Your task to perform on an android device: View the shopping cart on newegg. Image 0: 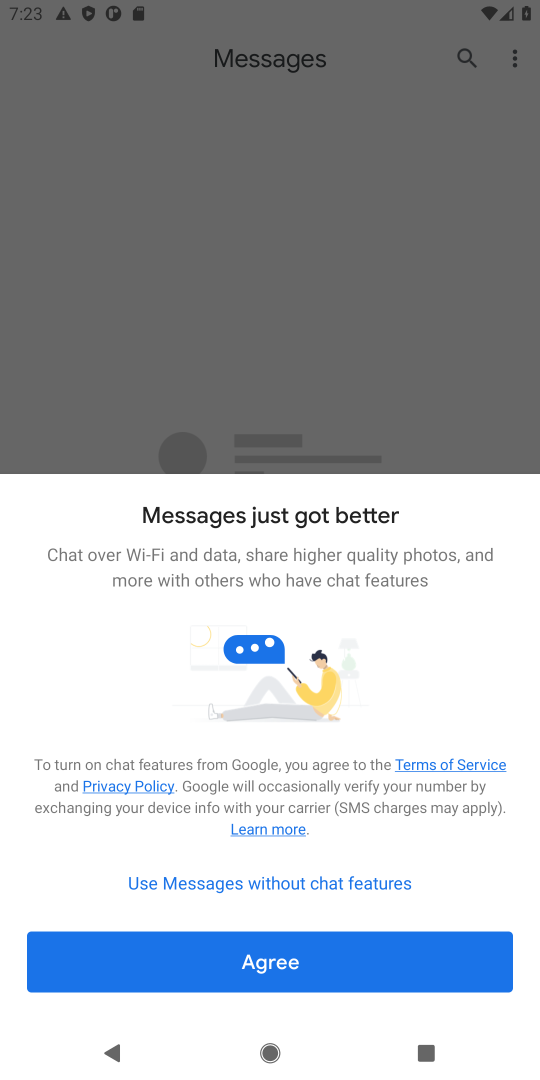
Step 0: press home button
Your task to perform on an android device: View the shopping cart on newegg. Image 1: 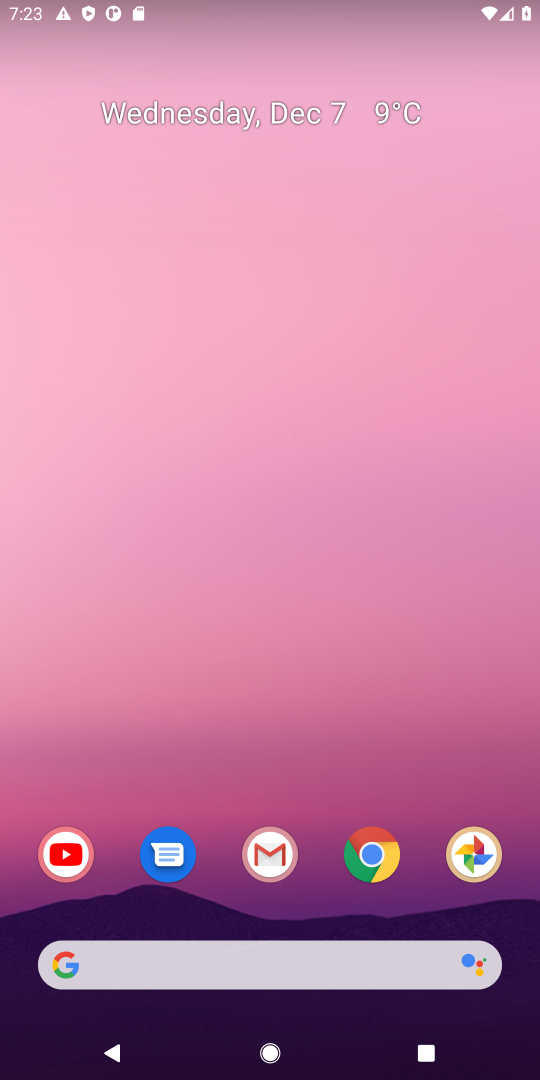
Step 1: click (271, 978)
Your task to perform on an android device: View the shopping cart on newegg. Image 2: 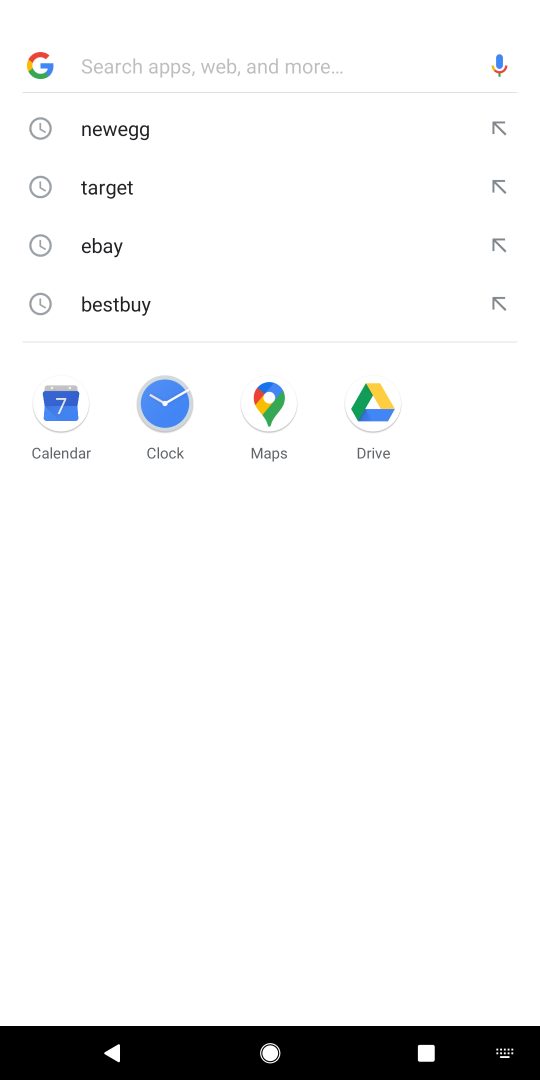
Step 2: type "newegg"
Your task to perform on an android device: View the shopping cart on newegg. Image 3: 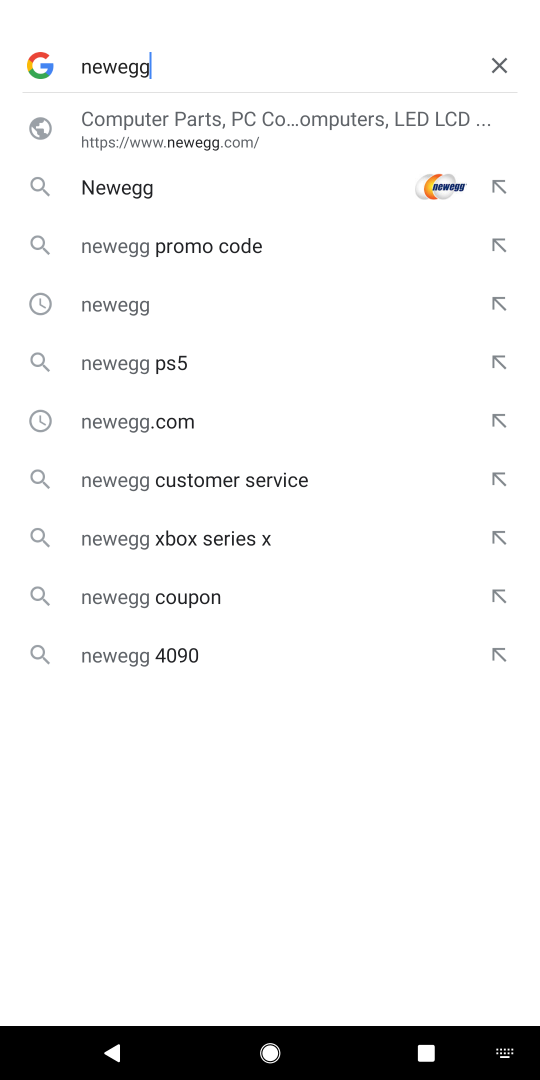
Step 3: click (112, 126)
Your task to perform on an android device: View the shopping cart on newegg. Image 4: 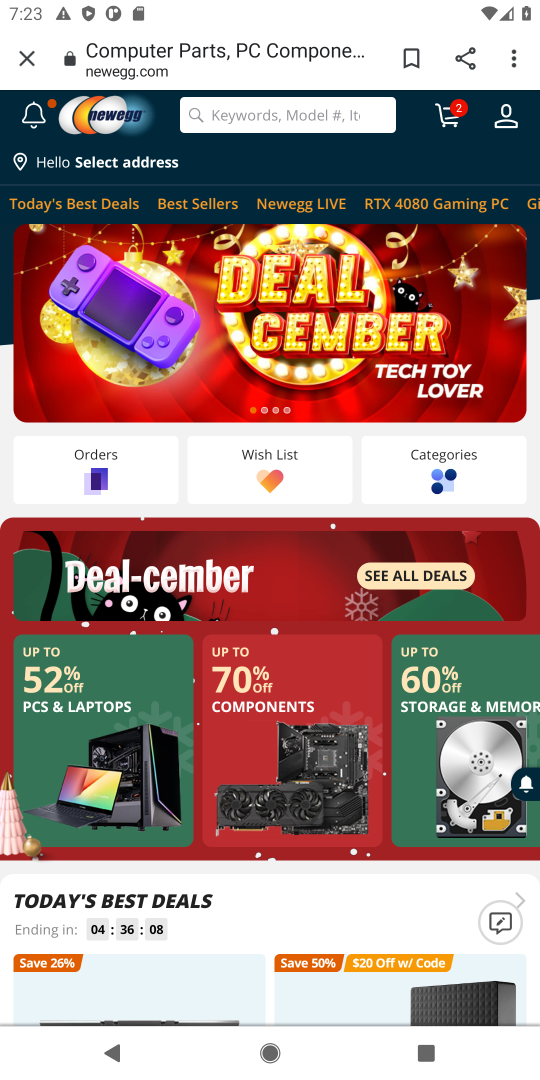
Step 4: click (240, 105)
Your task to perform on an android device: View the shopping cart on newegg. Image 5: 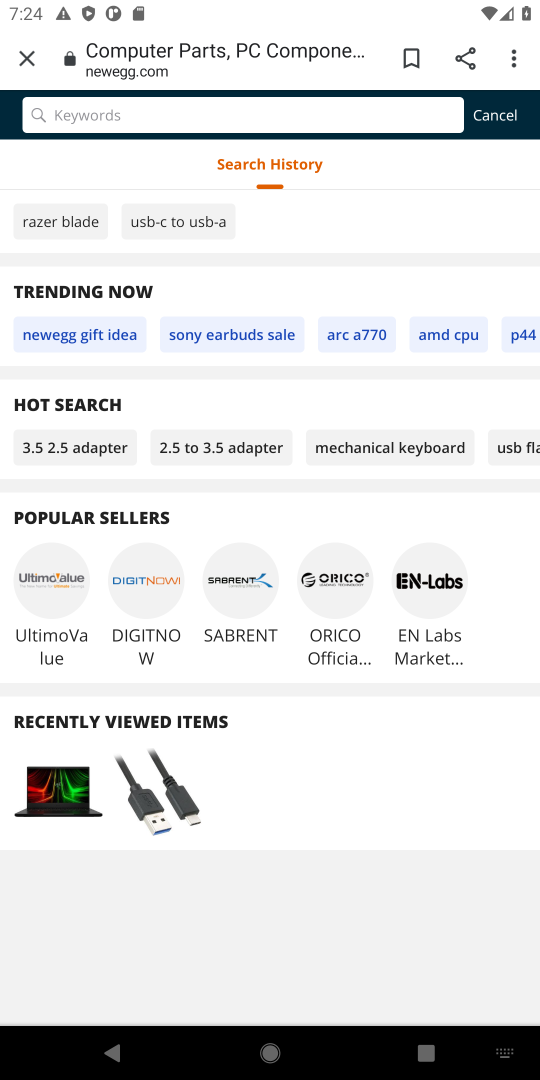
Step 5: click (495, 120)
Your task to perform on an android device: View the shopping cart on newegg. Image 6: 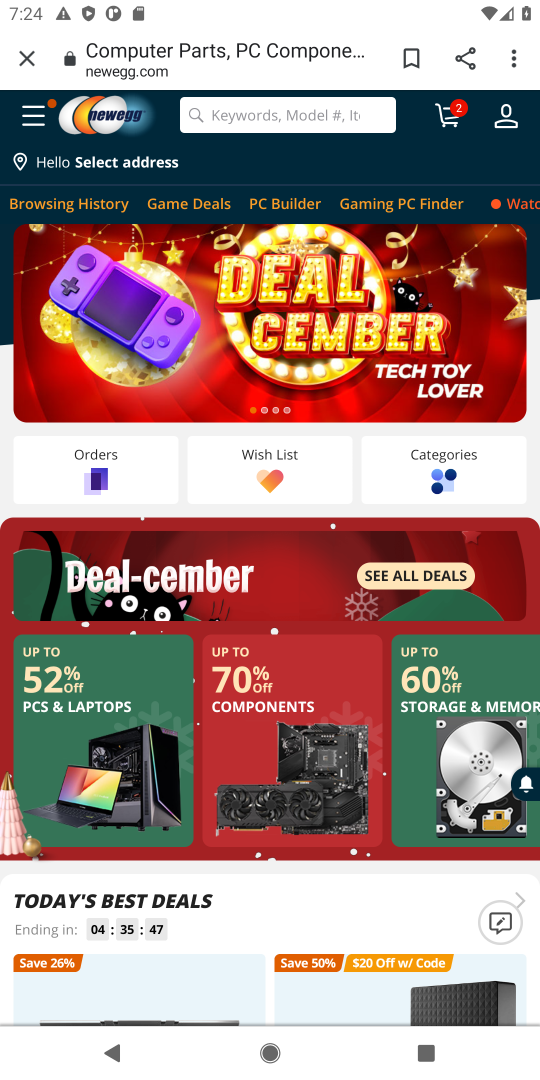
Step 6: click (439, 115)
Your task to perform on an android device: View the shopping cart on newegg. Image 7: 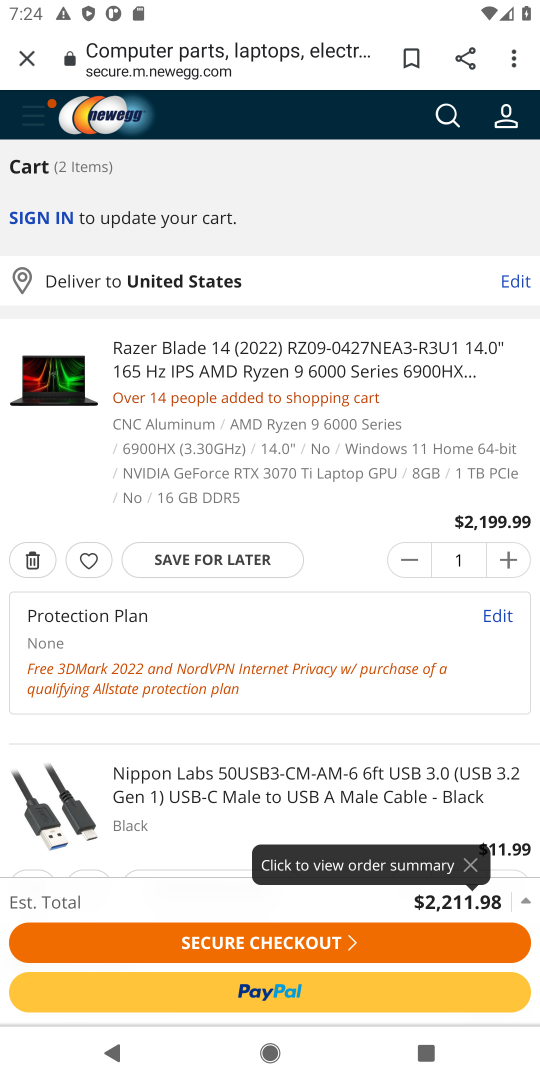
Step 7: task complete